Your task to perform on an android device: toggle wifi Image 0: 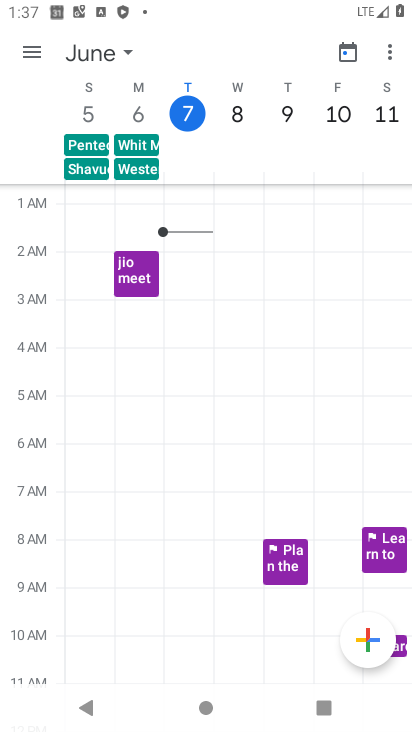
Step 0: press home button
Your task to perform on an android device: toggle wifi Image 1: 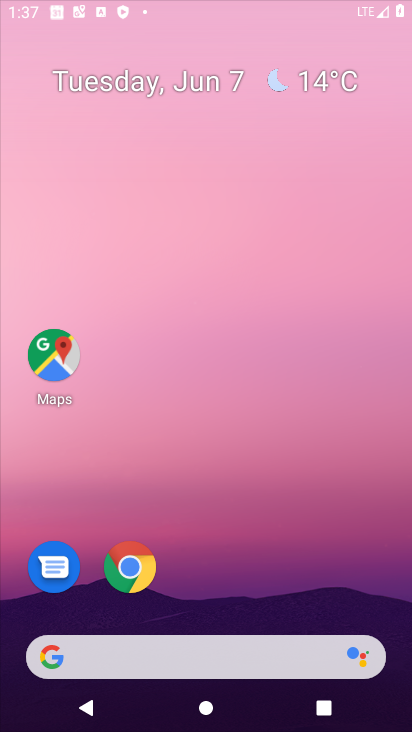
Step 1: drag from (261, 633) to (232, 9)
Your task to perform on an android device: toggle wifi Image 2: 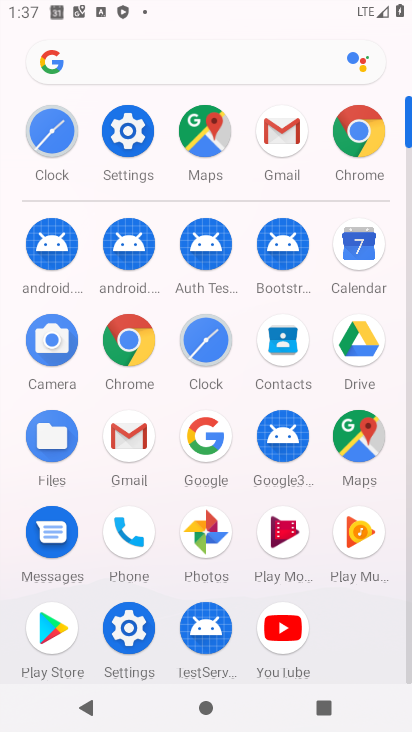
Step 2: click (138, 135)
Your task to perform on an android device: toggle wifi Image 3: 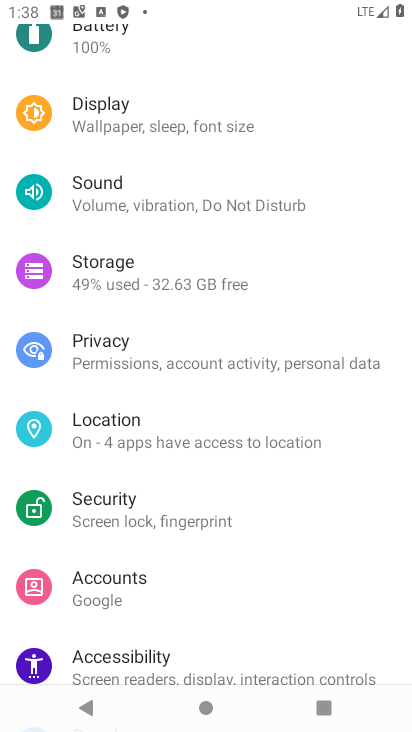
Step 3: drag from (173, 112) to (227, 700)
Your task to perform on an android device: toggle wifi Image 4: 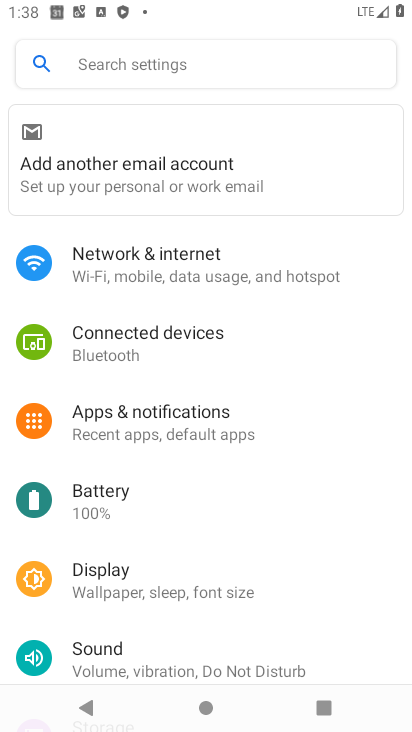
Step 4: click (236, 289)
Your task to perform on an android device: toggle wifi Image 5: 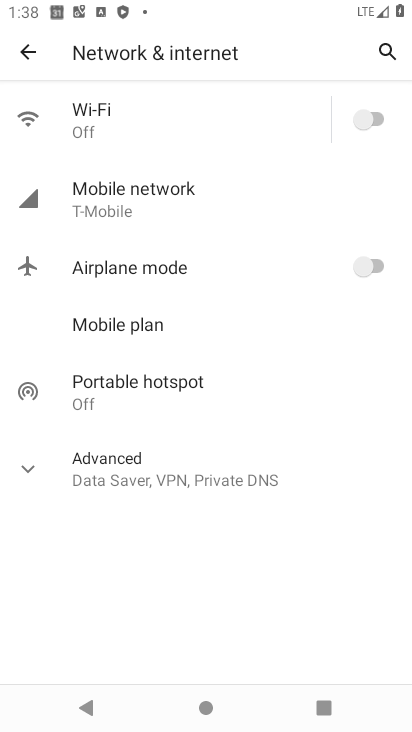
Step 5: click (379, 123)
Your task to perform on an android device: toggle wifi Image 6: 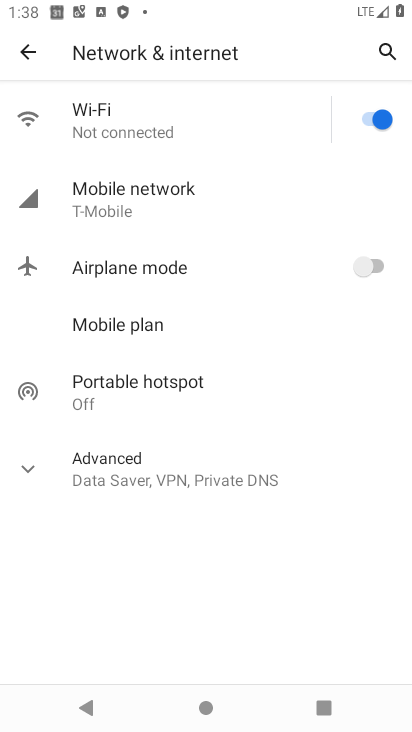
Step 6: task complete